Your task to perform on an android device: Show me the best rated vacuum on Walmart. Image 0: 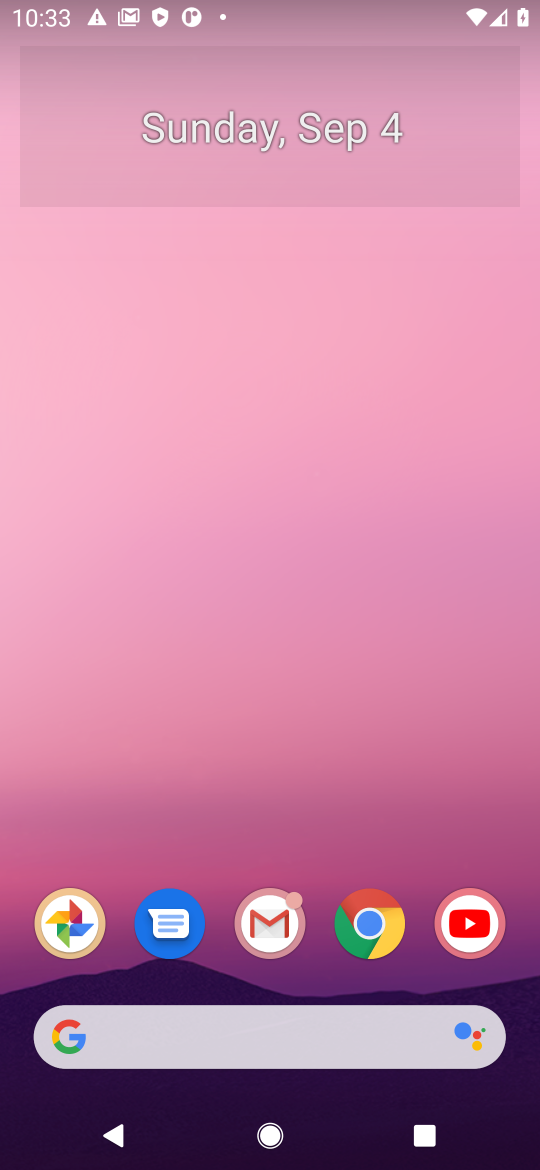
Step 0: press home button
Your task to perform on an android device: Show me the best rated vacuum on Walmart. Image 1: 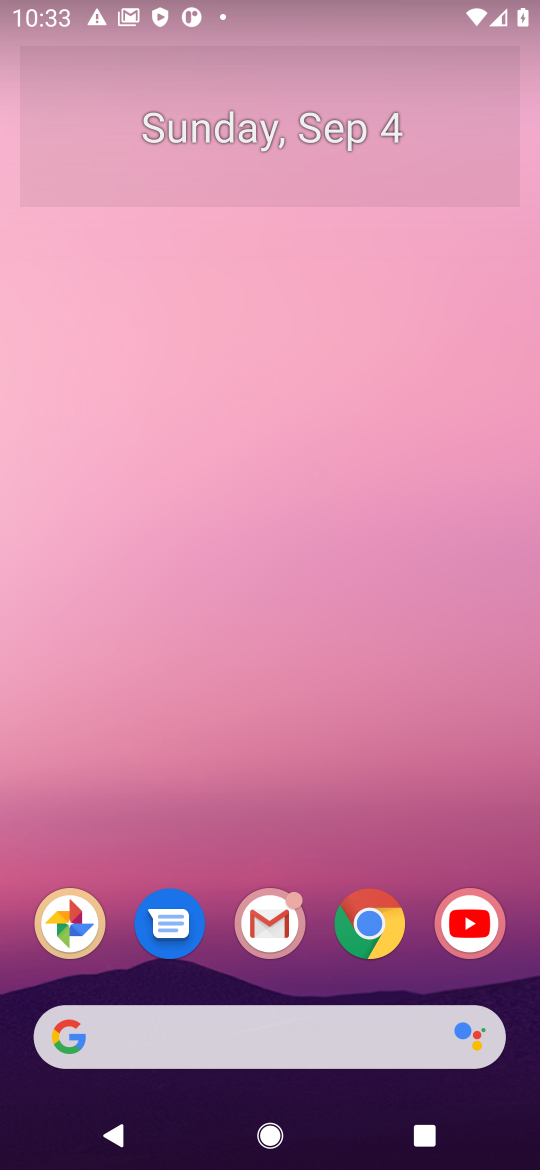
Step 1: click (375, 1039)
Your task to perform on an android device: Show me the best rated vacuum on Walmart. Image 2: 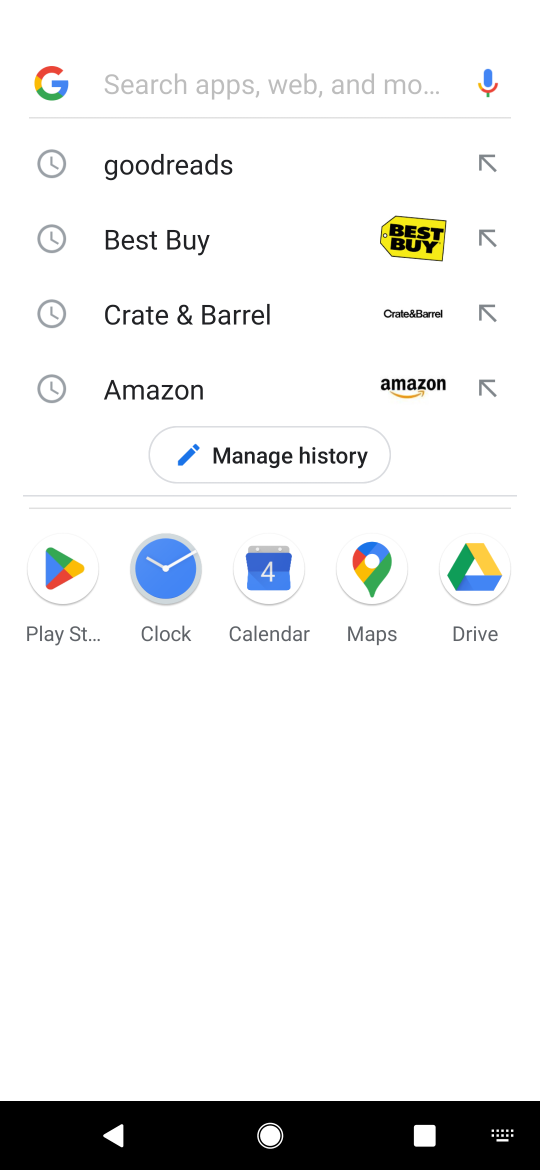
Step 2: press enter
Your task to perform on an android device: Show me the best rated vacuum on Walmart. Image 3: 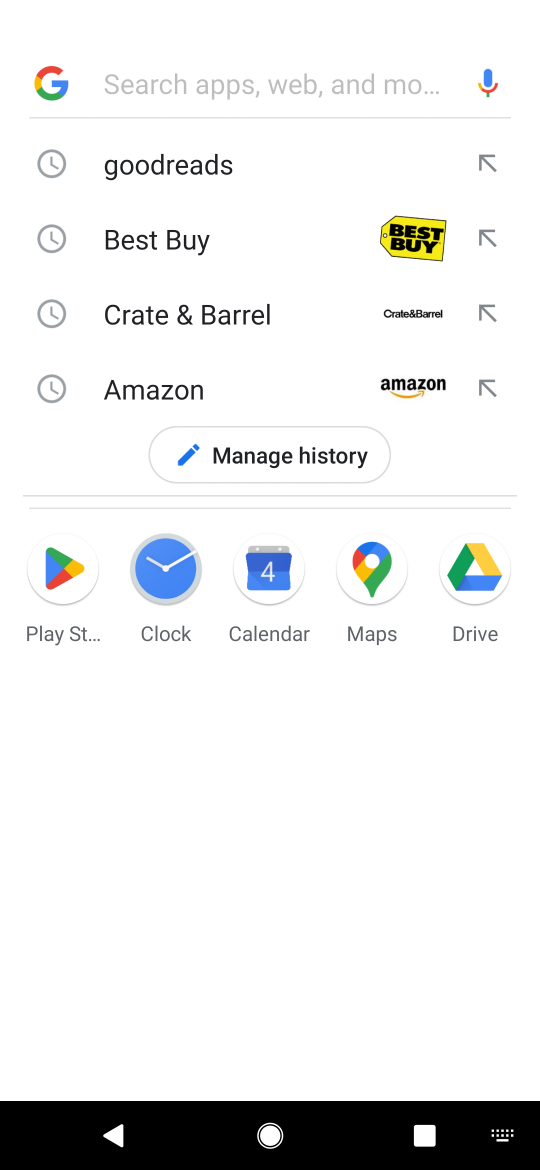
Step 3: type "walmart"
Your task to perform on an android device: Show me the best rated vacuum on Walmart. Image 4: 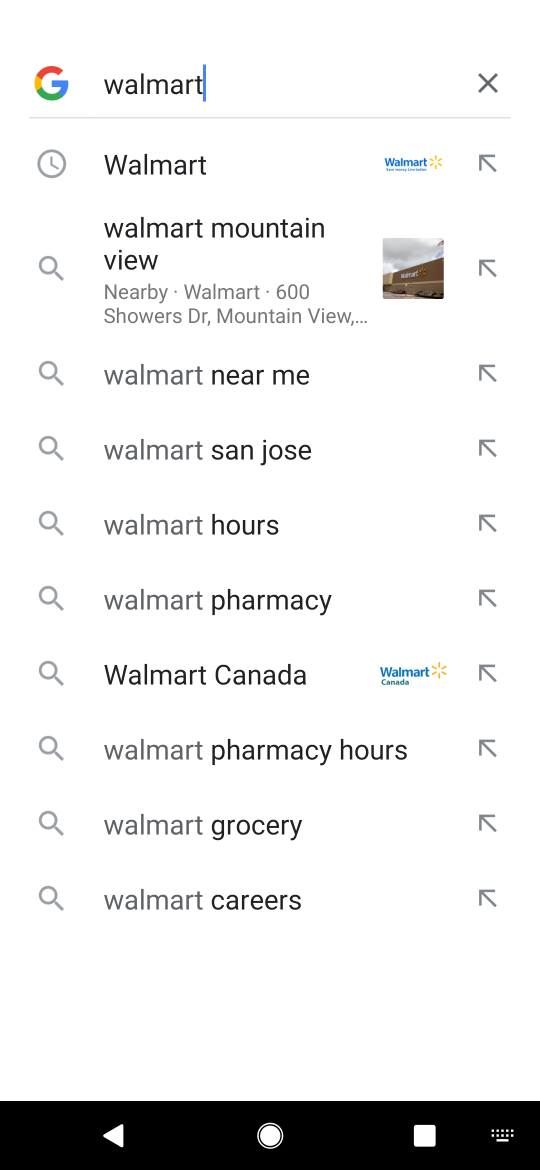
Step 4: click (227, 168)
Your task to perform on an android device: Show me the best rated vacuum on Walmart. Image 5: 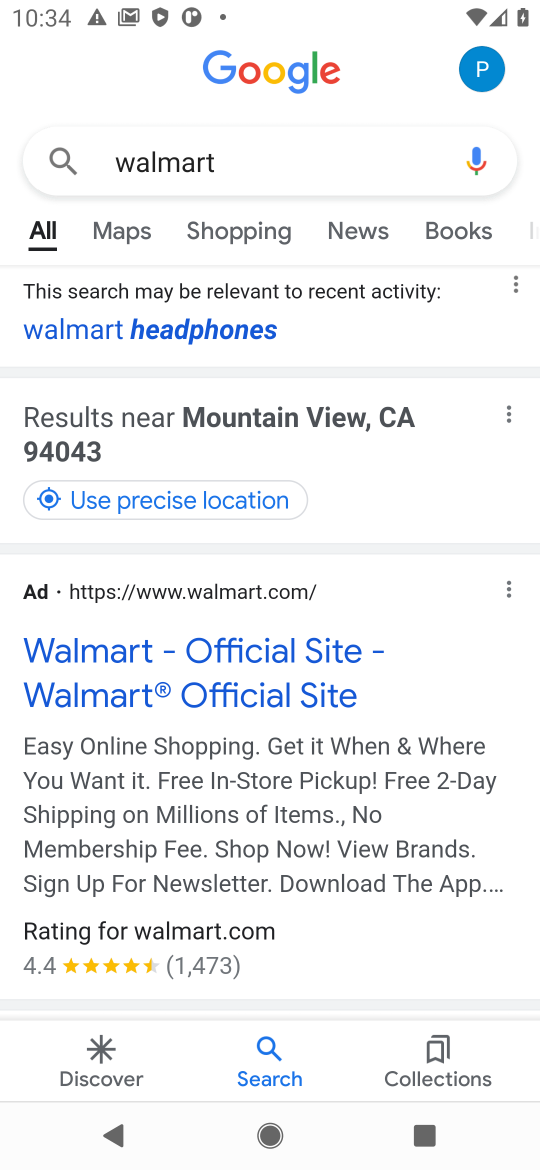
Step 5: click (221, 664)
Your task to perform on an android device: Show me the best rated vacuum on Walmart. Image 6: 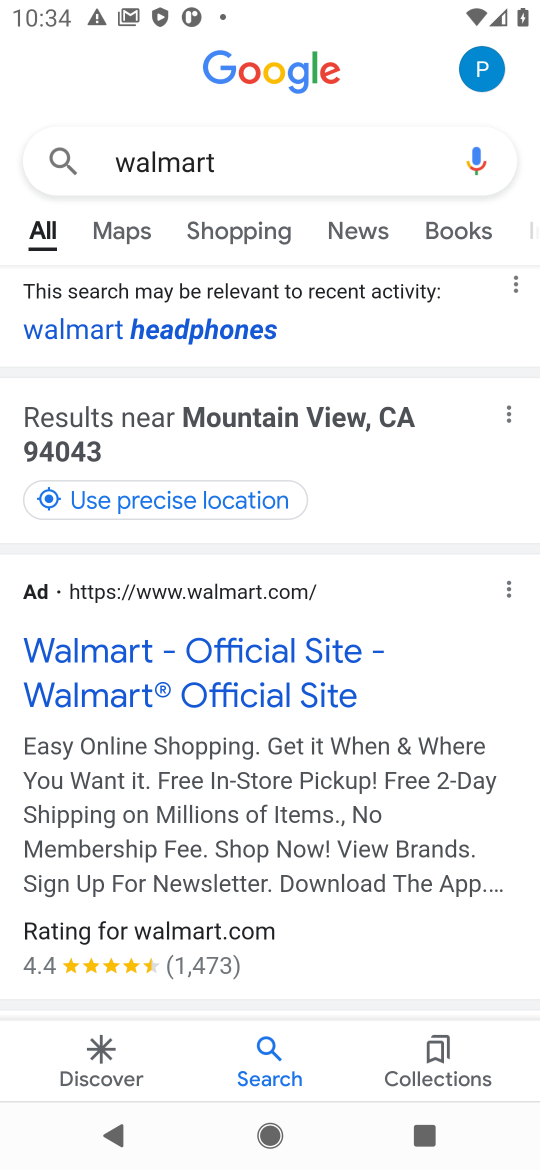
Step 6: click (236, 674)
Your task to perform on an android device: Show me the best rated vacuum on Walmart. Image 7: 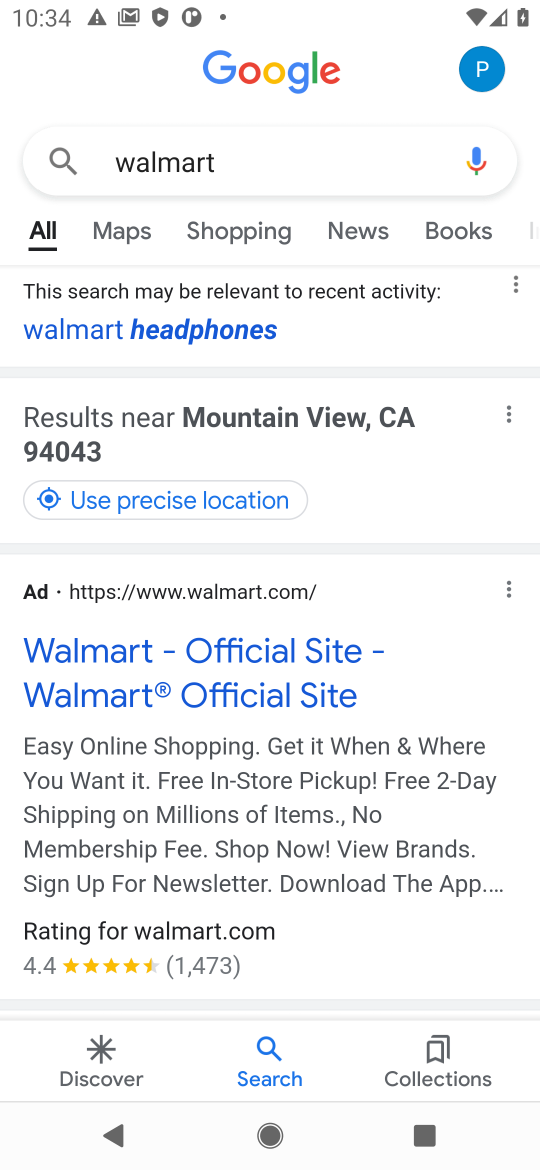
Step 7: click (221, 686)
Your task to perform on an android device: Show me the best rated vacuum on Walmart. Image 8: 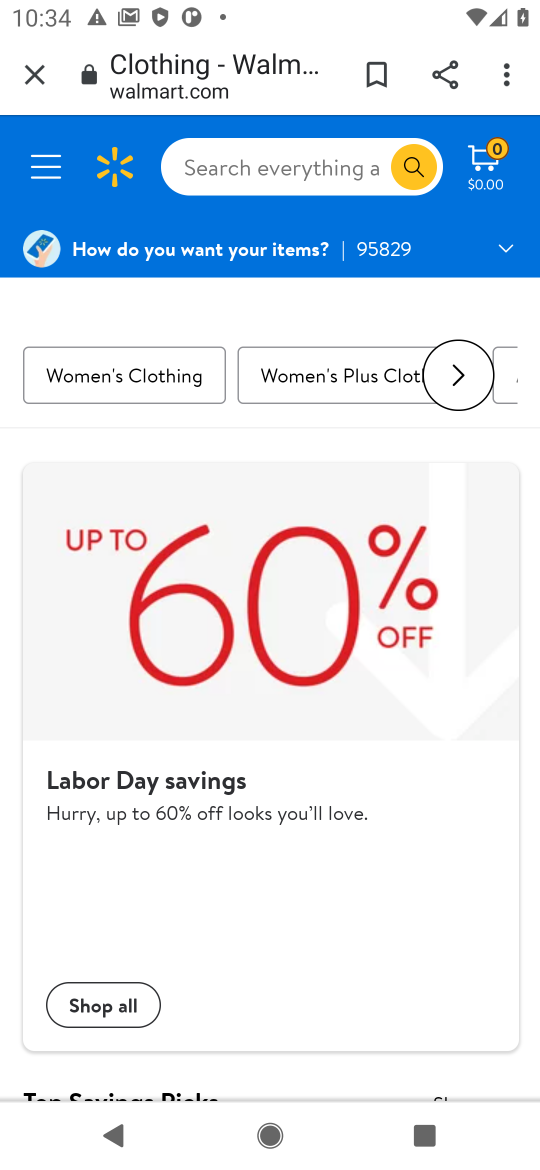
Step 8: click (221, 159)
Your task to perform on an android device: Show me the best rated vacuum on Walmart. Image 9: 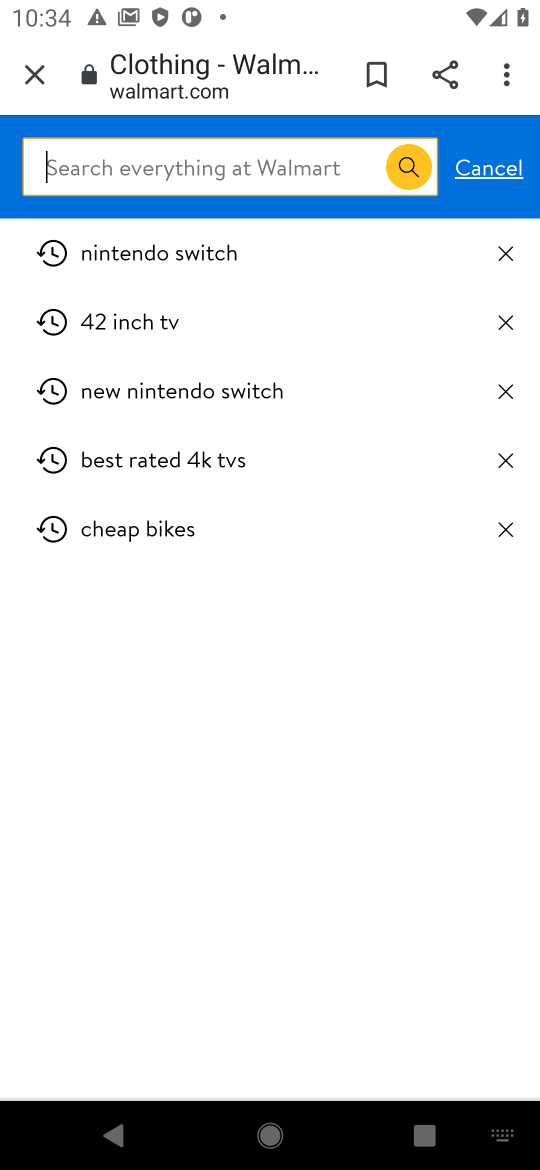
Step 9: press enter
Your task to perform on an android device: Show me the best rated vacuum on Walmart. Image 10: 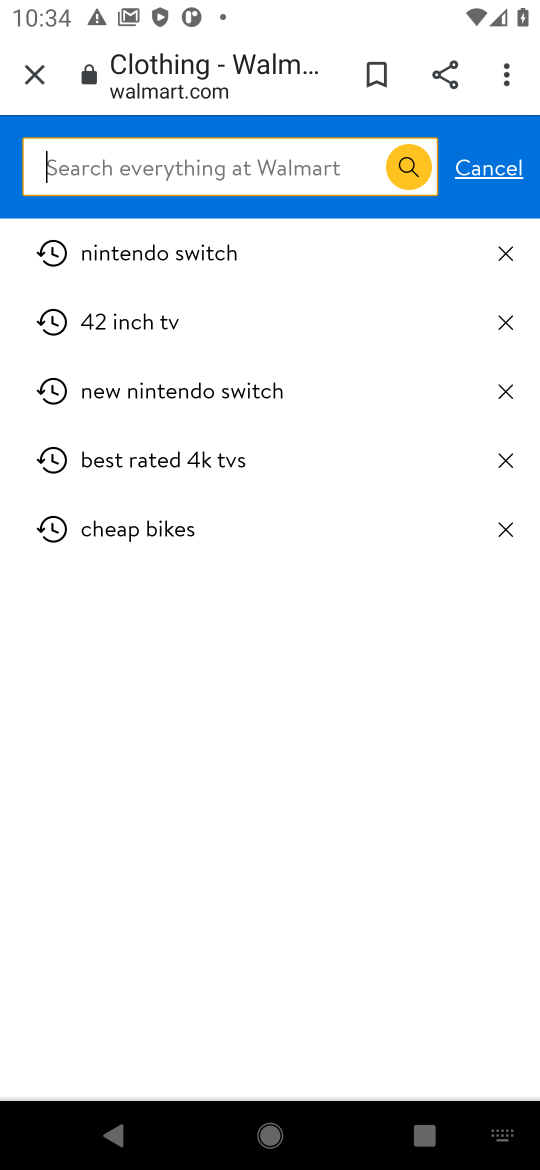
Step 10: type "best rated vacuum"
Your task to perform on an android device: Show me the best rated vacuum on Walmart. Image 11: 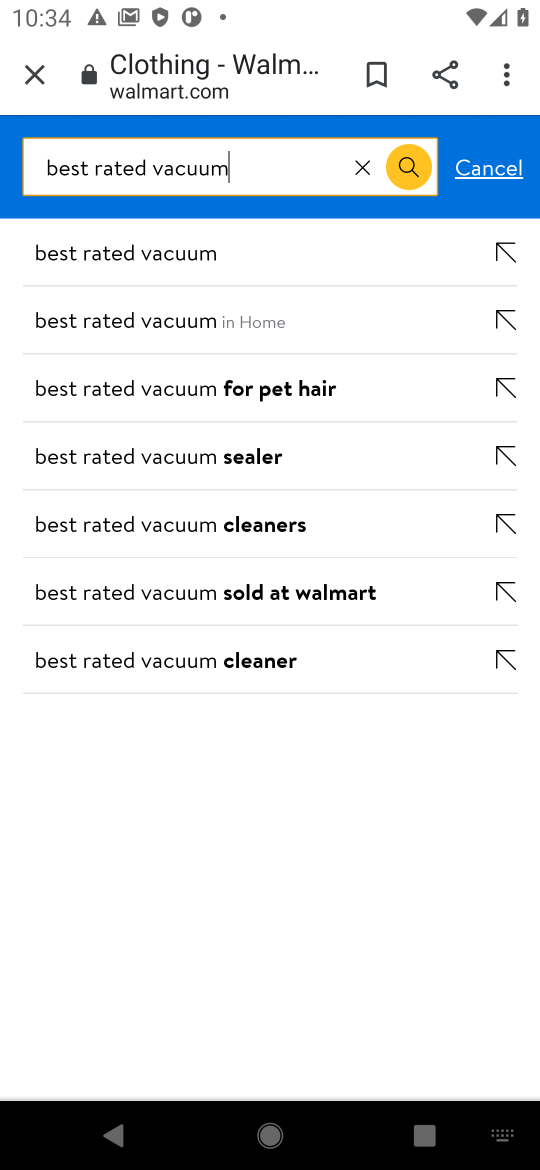
Step 11: click (221, 255)
Your task to perform on an android device: Show me the best rated vacuum on Walmart. Image 12: 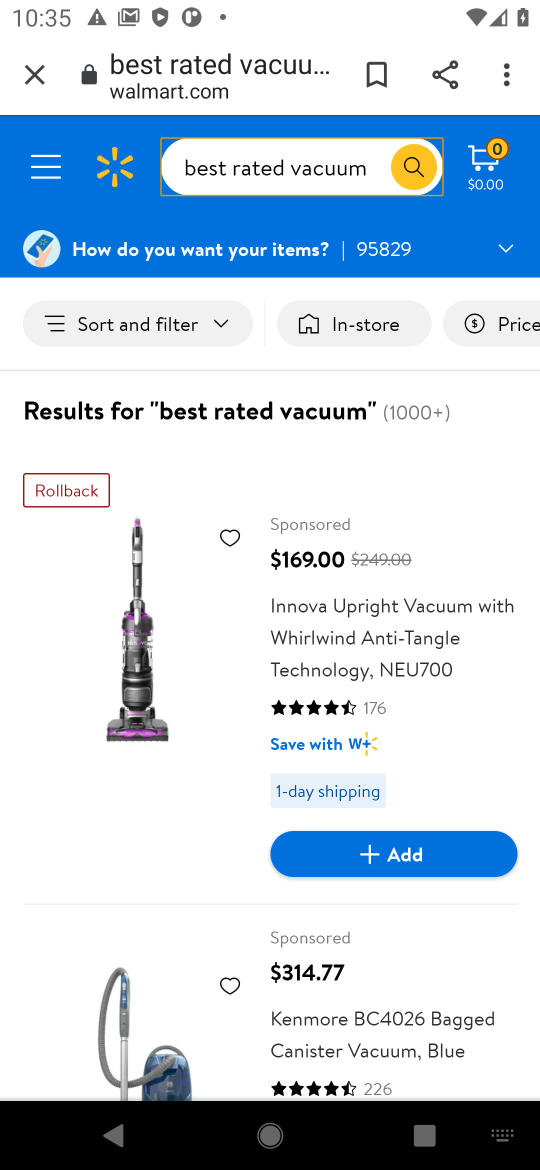
Step 12: task complete